Your task to perform on an android device: toggle improve location accuracy Image 0: 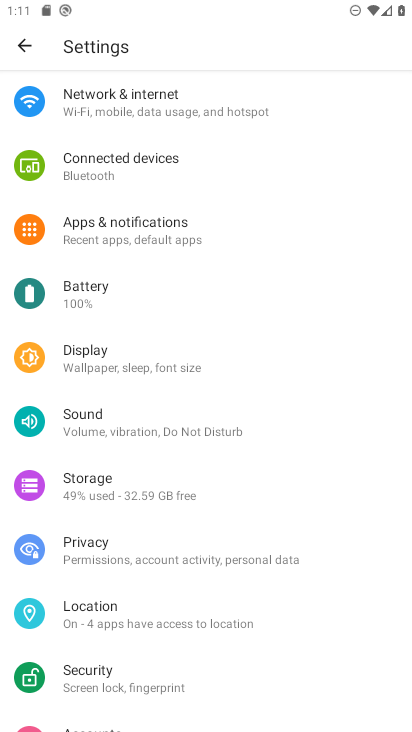
Step 0: click (105, 602)
Your task to perform on an android device: toggle improve location accuracy Image 1: 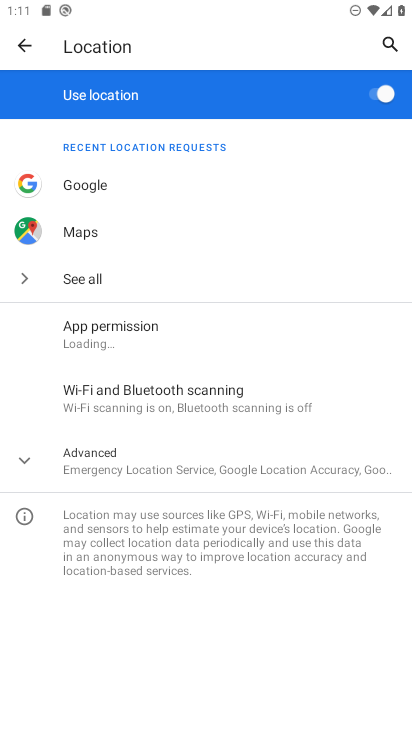
Step 1: click (178, 453)
Your task to perform on an android device: toggle improve location accuracy Image 2: 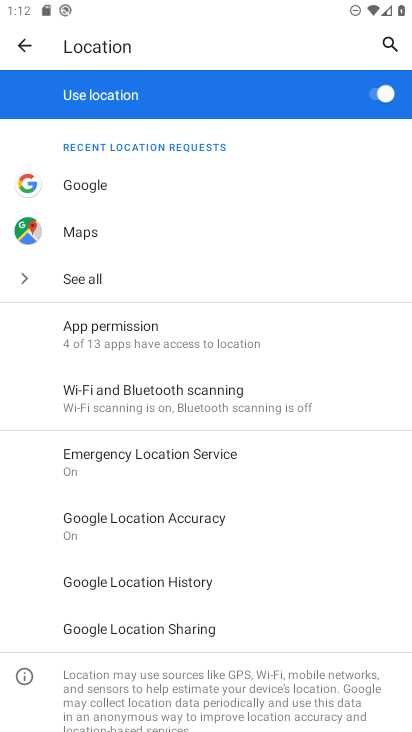
Step 2: click (170, 522)
Your task to perform on an android device: toggle improve location accuracy Image 3: 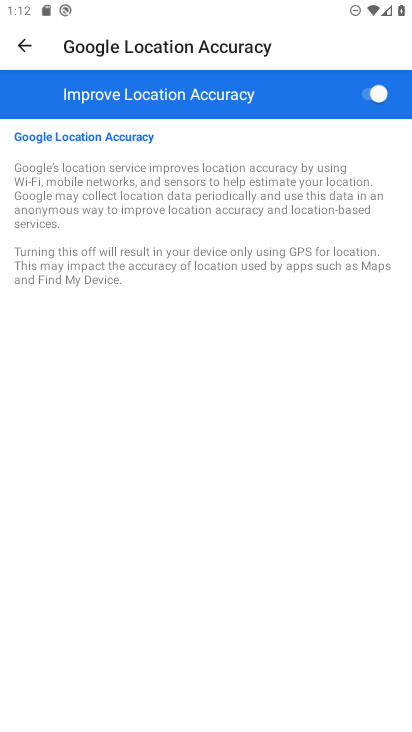
Step 3: click (365, 93)
Your task to perform on an android device: toggle improve location accuracy Image 4: 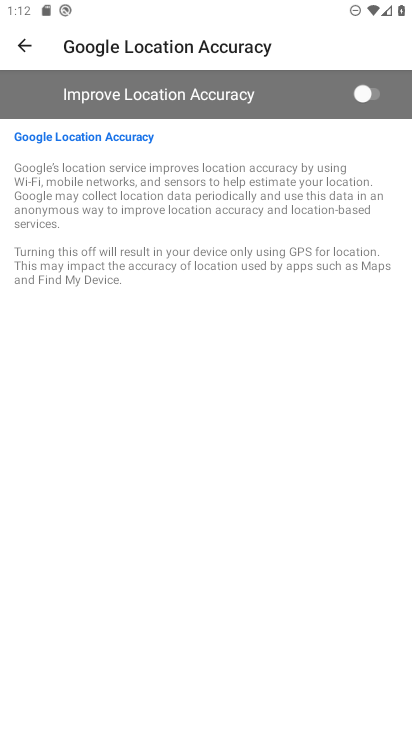
Step 4: task complete